Your task to perform on an android device: Is it going to rain today? Image 0: 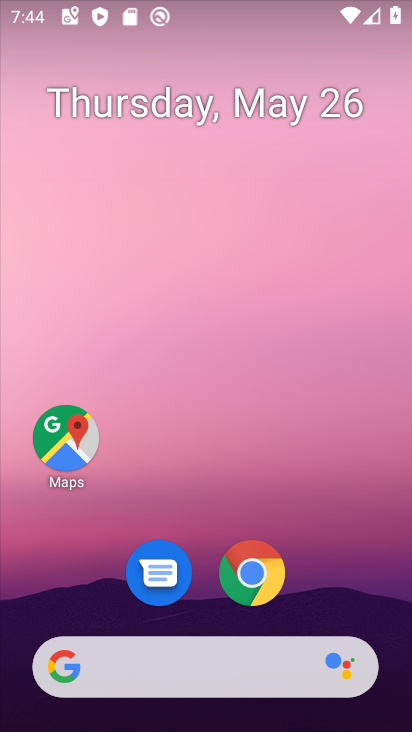
Step 0: click (140, 679)
Your task to perform on an android device: Is it going to rain today? Image 1: 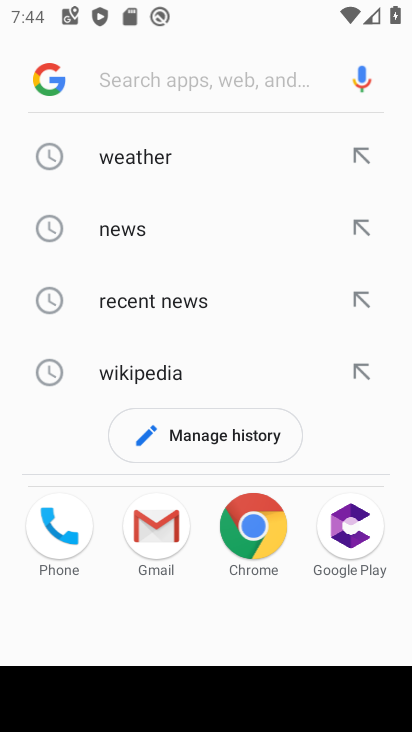
Step 1: click (153, 152)
Your task to perform on an android device: Is it going to rain today? Image 2: 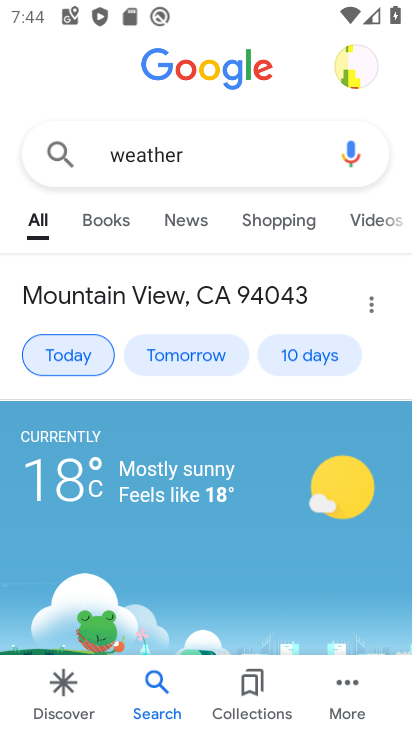
Step 2: click (69, 346)
Your task to perform on an android device: Is it going to rain today? Image 3: 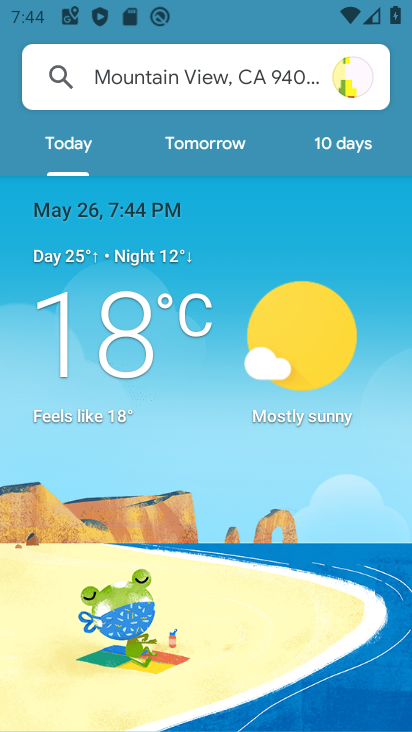
Step 3: task complete